Your task to perform on an android device: Open notification settings Image 0: 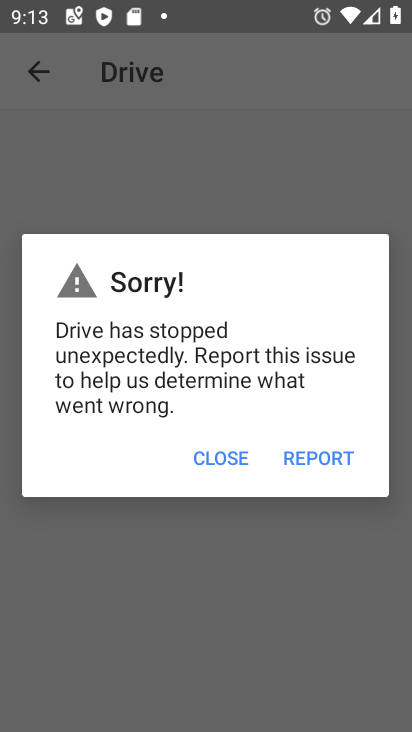
Step 0: press home button
Your task to perform on an android device: Open notification settings Image 1: 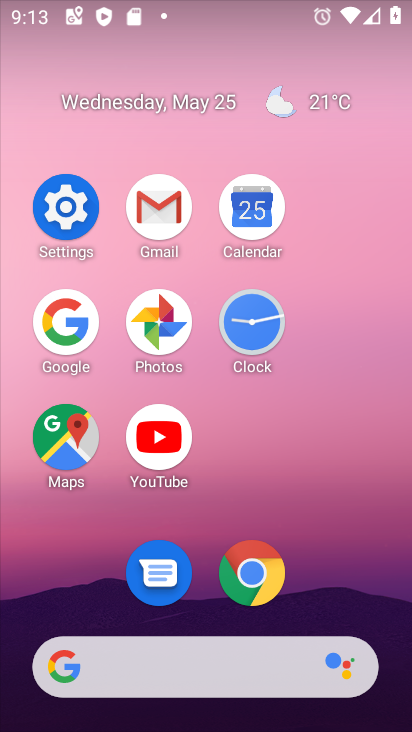
Step 1: click (95, 192)
Your task to perform on an android device: Open notification settings Image 2: 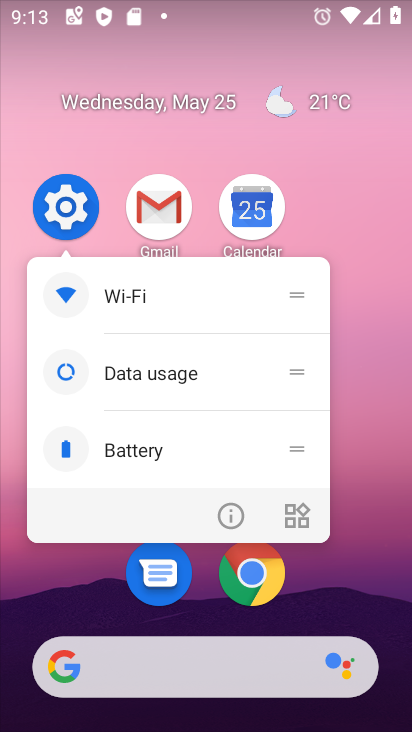
Step 2: click (98, 192)
Your task to perform on an android device: Open notification settings Image 3: 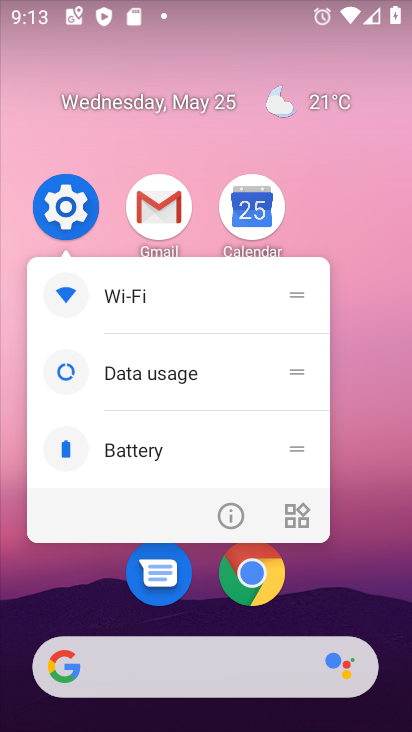
Step 3: click (55, 204)
Your task to perform on an android device: Open notification settings Image 4: 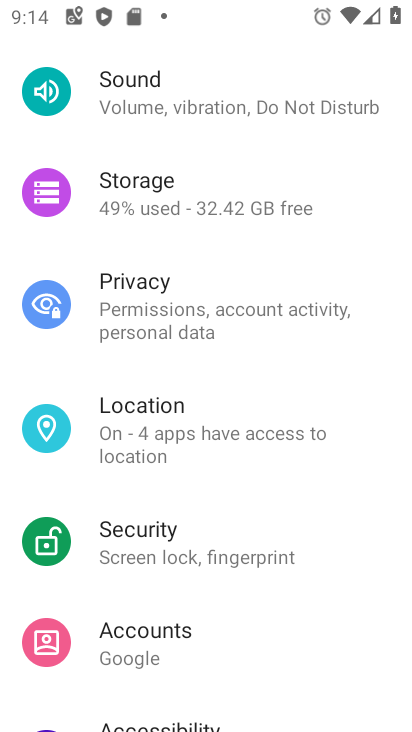
Step 4: drag from (166, 176) to (234, 557)
Your task to perform on an android device: Open notification settings Image 5: 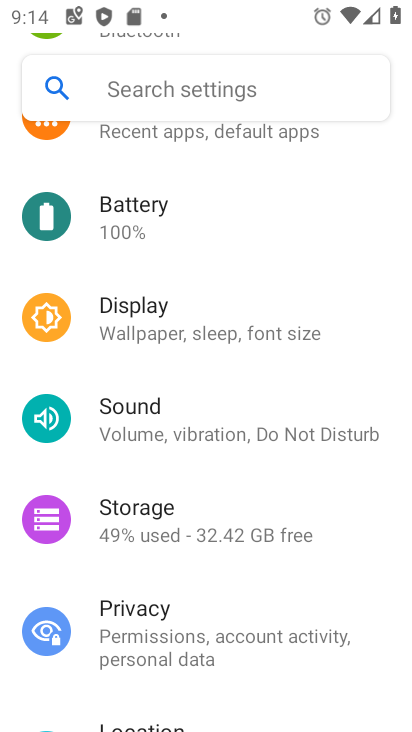
Step 5: drag from (260, 202) to (278, 544)
Your task to perform on an android device: Open notification settings Image 6: 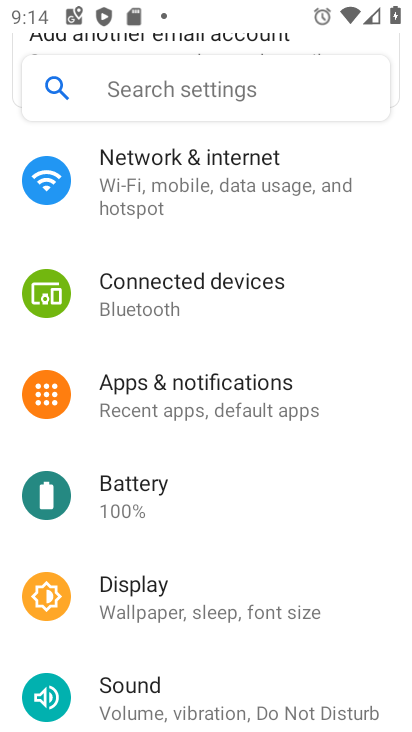
Step 6: click (214, 385)
Your task to perform on an android device: Open notification settings Image 7: 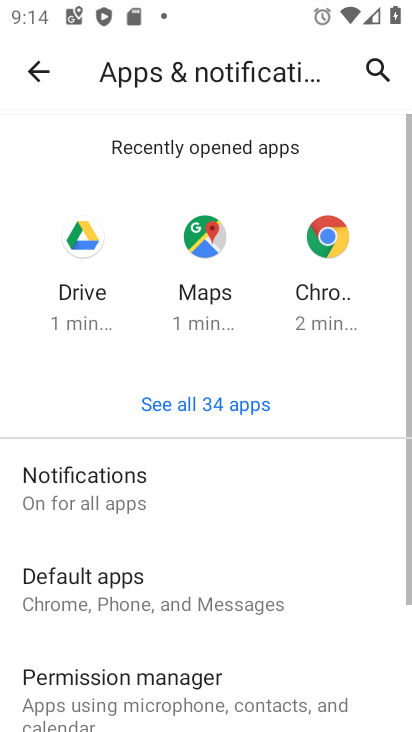
Step 7: task complete